Your task to perform on an android device: turn smart compose on in the gmail app Image 0: 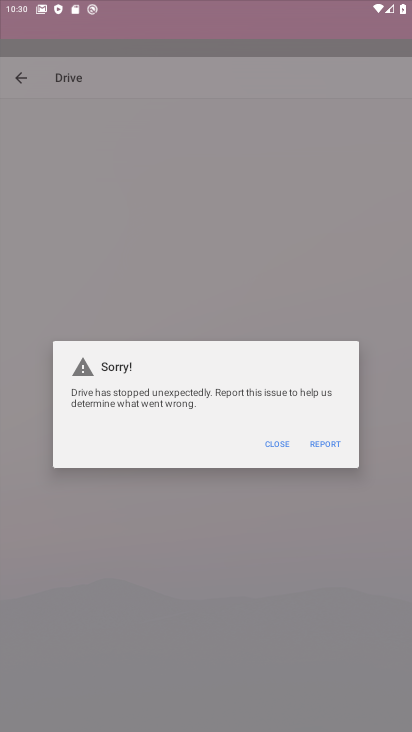
Step 0: click (316, 24)
Your task to perform on an android device: turn smart compose on in the gmail app Image 1: 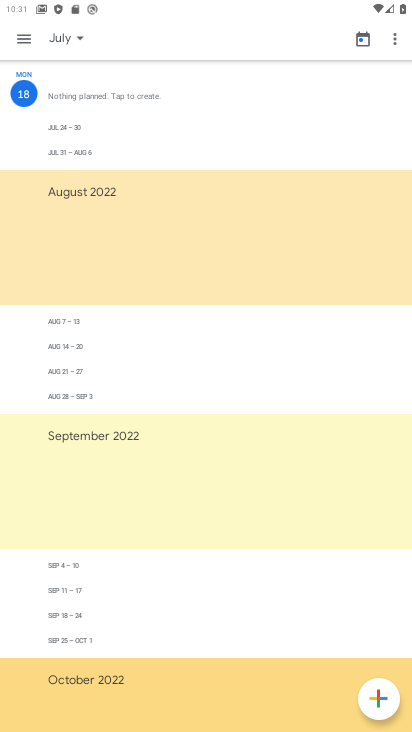
Step 1: press home button
Your task to perform on an android device: turn smart compose on in the gmail app Image 2: 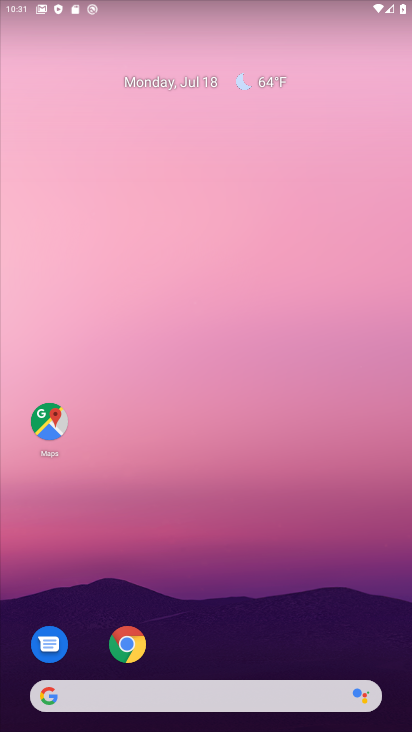
Step 2: drag from (251, 631) to (251, 282)
Your task to perform on an android device: turn smart compose on in the gmail app Image 3: 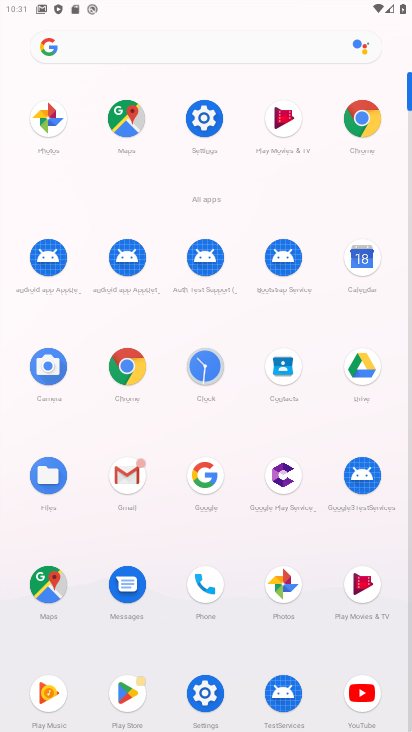
Step 3: click (139, 475)
Your task to perform on an android device: turn smart compose on in the gmail app Image 4: 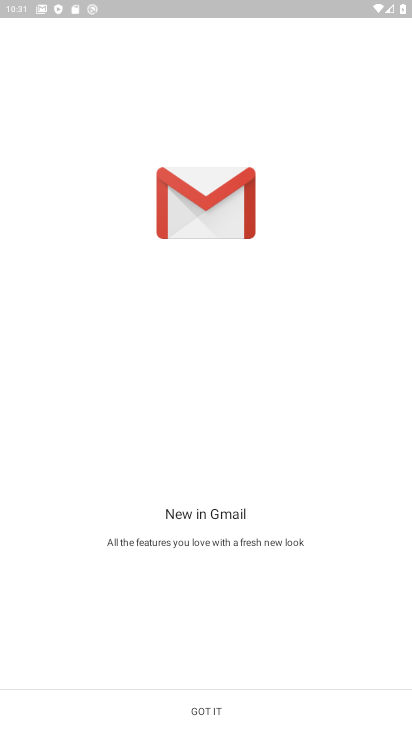
Step 4: click (220, 703)
Your task to perform on an android device: turn smart compose on in the gmail app Image 5: 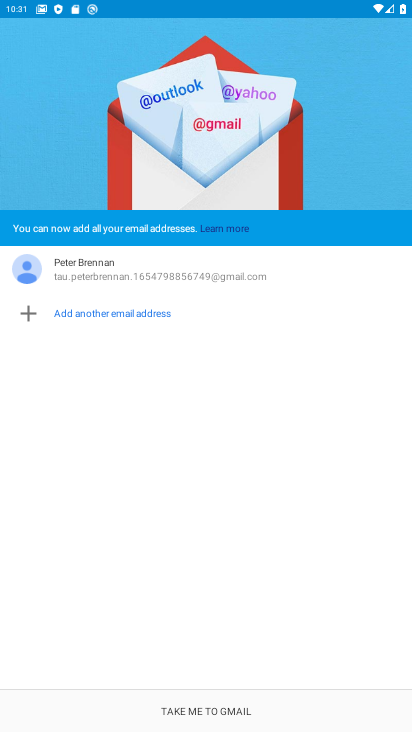
Step 5: click (220, 703)
Your task to perform on an android device: turn smart compose on in the gmail app Image 6: 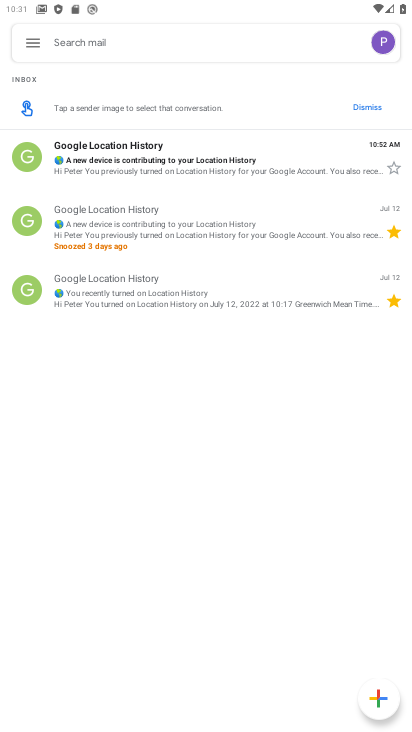
Step 6: click (27, 36)
Your task to perform on an android device: turn smart compose on in the gmail app Image 7: 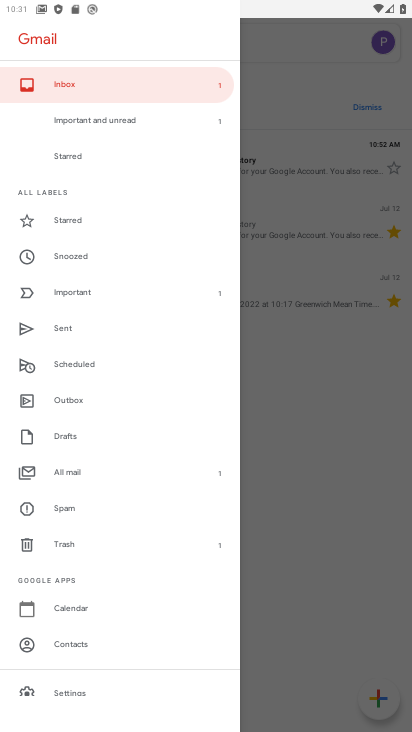
Step 7: click (74, 689)
Your task to perform on an android device: turn smart compose on in the gmail app Image 8: 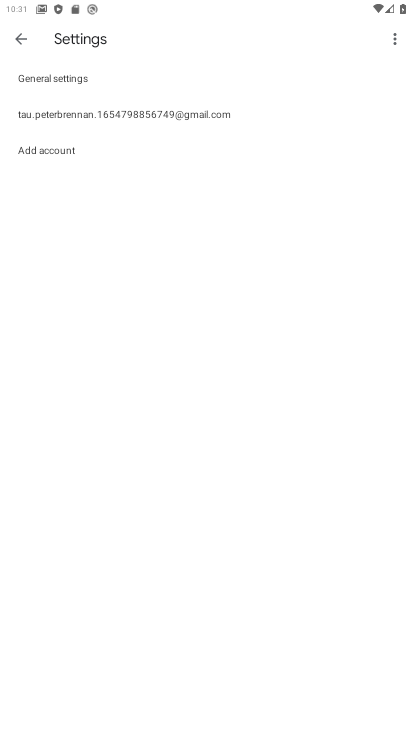
Step 8: click (215, 108)
Your task to perform on an android device: turn smart compose on in the gmail app Image 9: 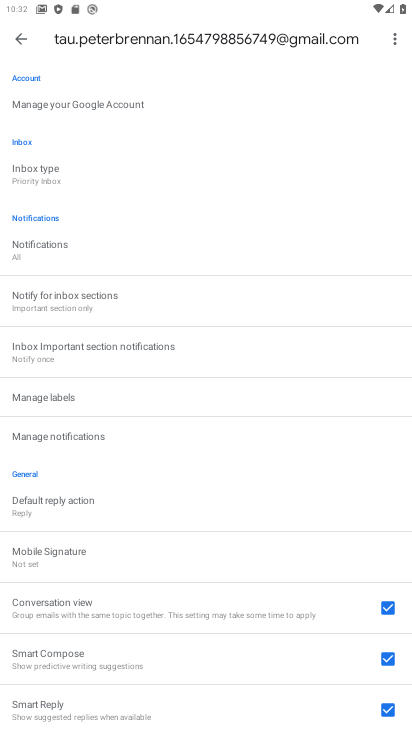
Step 9: task complete